Your task to perform on an android device: Clear all items from cart on walmart. Image 0: 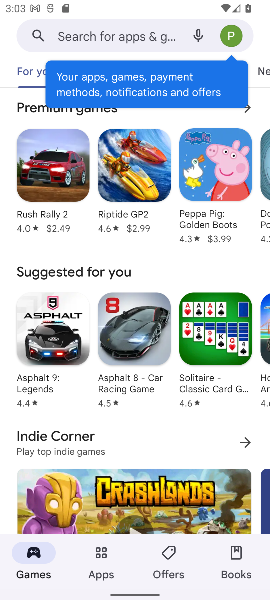
Step 0: press home button
Your task to perform on an android device: Clear all items from cart on walmart. Image 1: 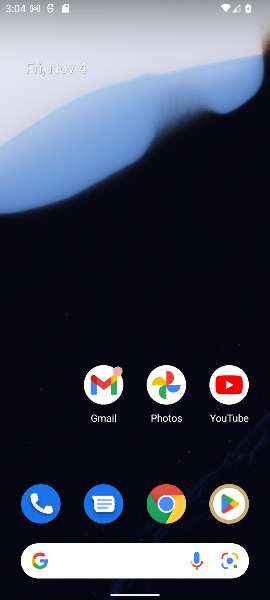
Step 1: click (168, 501)
Your task to perform on an android device: Clear all items from cart on walmart. Image 2: 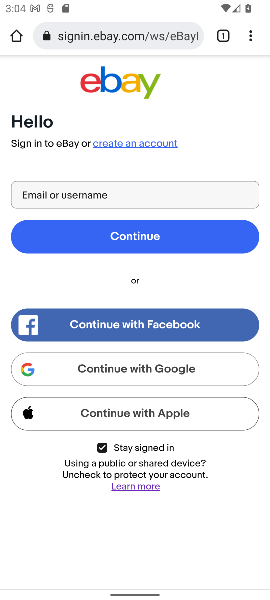
Step 2: click (98, 42)
Your task to perform on an android device: Clear all items from cart on walmart. Image 3: 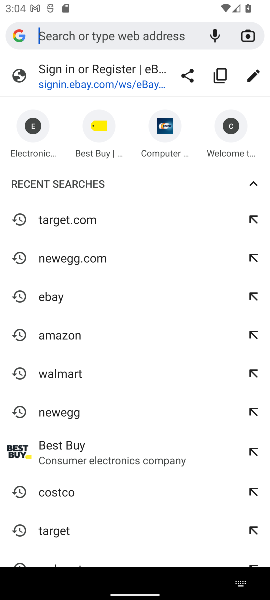
Step 3: click (61, 371)
Your task to perform on an android device: Clear all items from cart on walmart. Image 4: 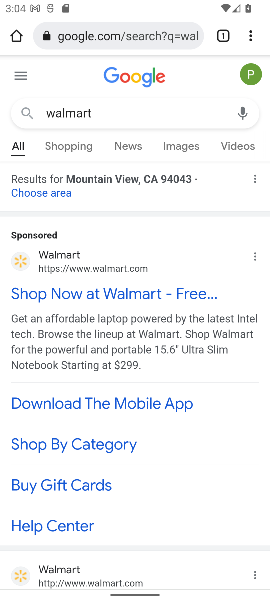
Step 4: drag from (121, 426) to (130, 175)
Your task to perform on an android device: Clear all items from cart on walmart. Image 5: 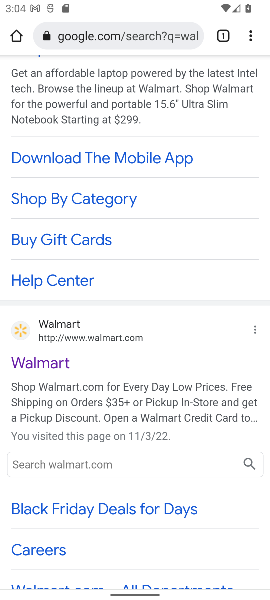
Step 5: click (41, 361)
Your task to perform on an android device: Clear all items from cart on walmart. Image 6: 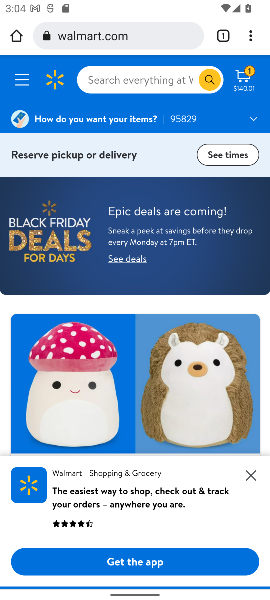
Step 6: click (243, 84)
Your task to perform on an android device: Clear all items from cart on walmart. Image 7: 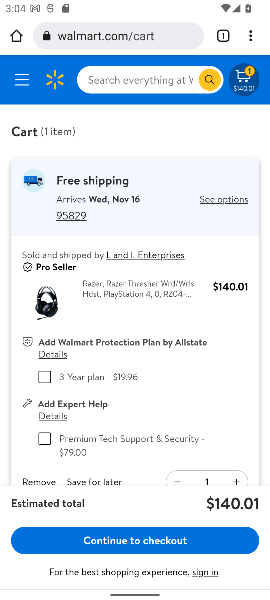
Step 7: drag from (132, 410) to (132, 288)
Your task to perform on an android device: Clear all items from cart on walmart. Image 8: 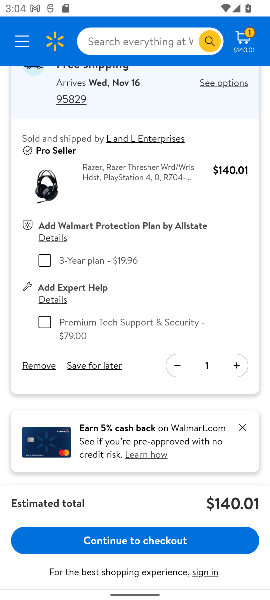
Step 8: click (35, 369)
Your task to perform on an android device: Clear all items from cart on walmart. Image 9: 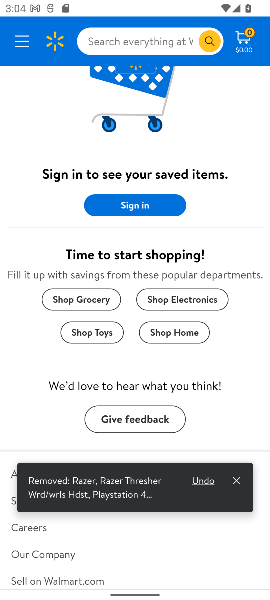
Step 9: task complete